Your task to perform on an android device: install app "Spotify" Image 0: 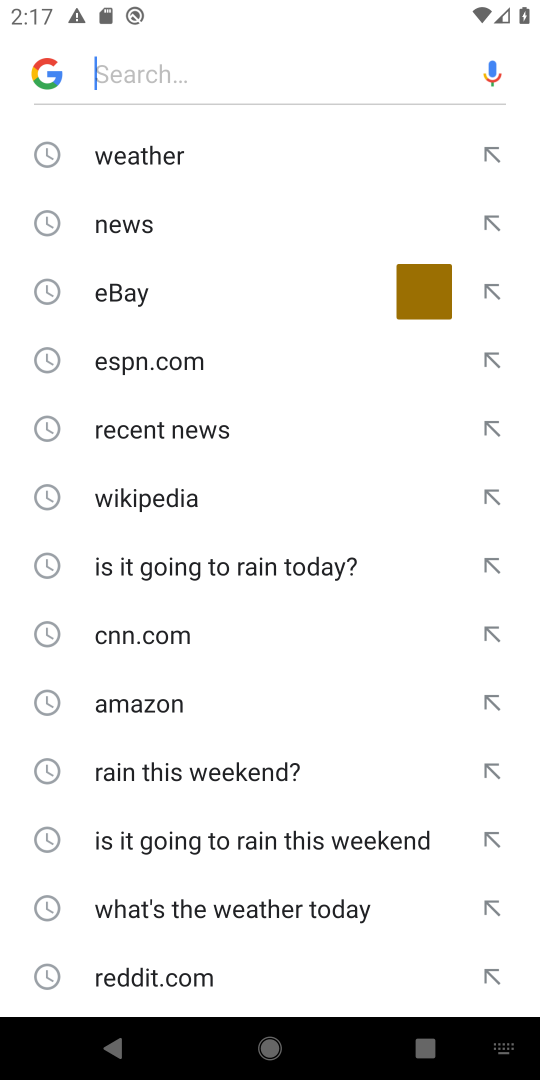
Step 0: press home button
Your task to perform on an android device: install app "Spotify" Image 1: 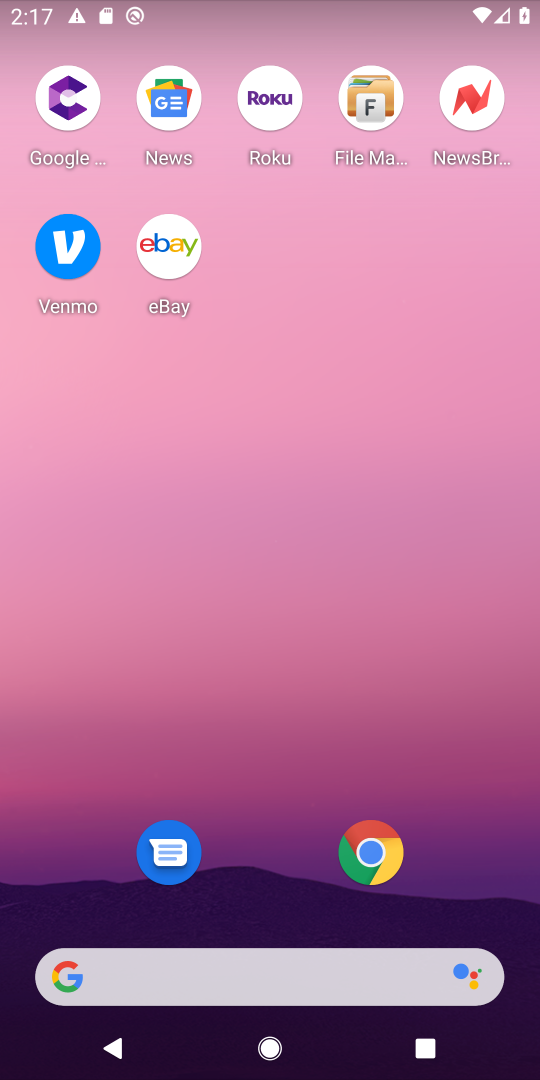
Step 1: drag from (275, 413) to (275, 164)
Your task to perform on an android device: install app "Spotify" Image 2: 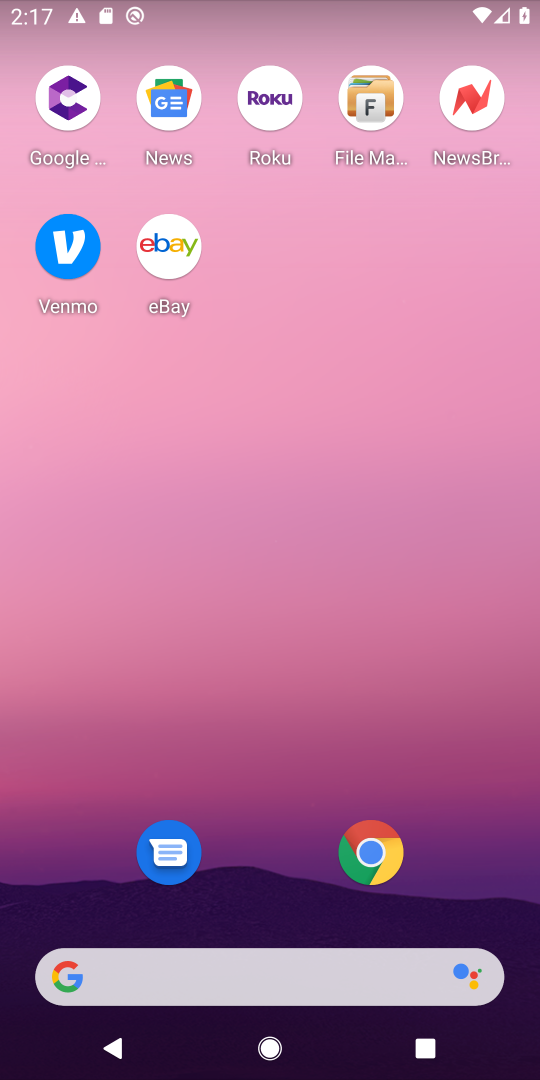
Step 2: drag from (282, 935) to (300, 96)
Your task to perform on an android device: install app "Spotify" Image 3: 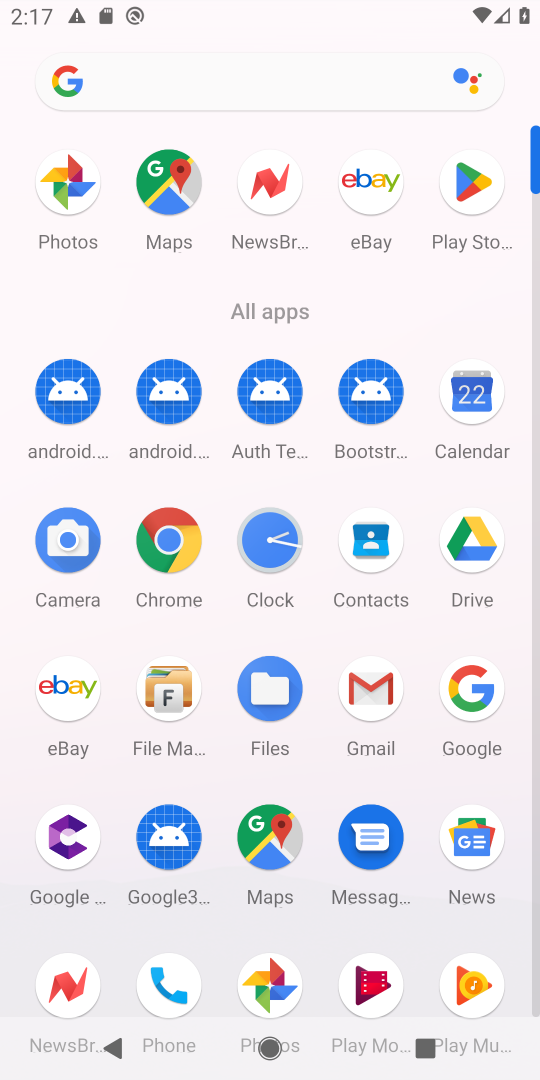
Step 3: click (474, 188)
Your task to perform on an android device: install app "Spotify" Image 4: 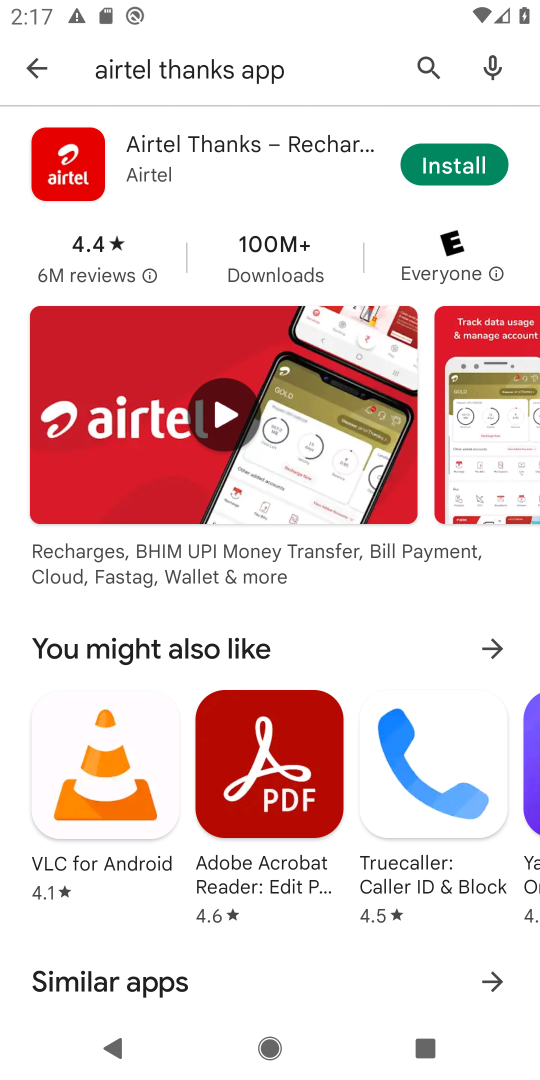
Step 4: click (432, 64)
Your task to perform on an android device: install app "Spotify" Image 5: 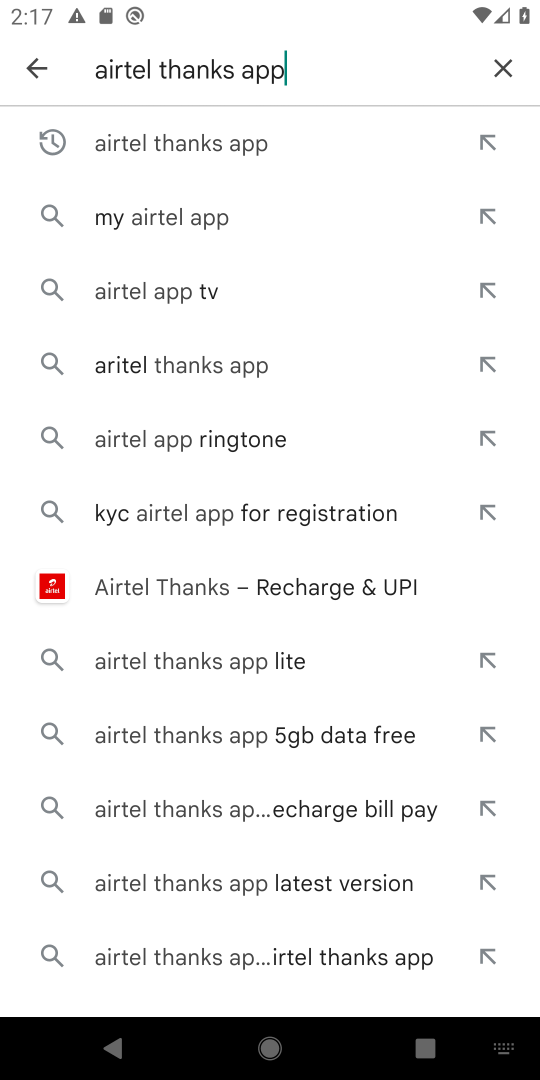
Step 5: click (504, 68)
Your task to perform on an android device: install app "Spotify" Image 6: 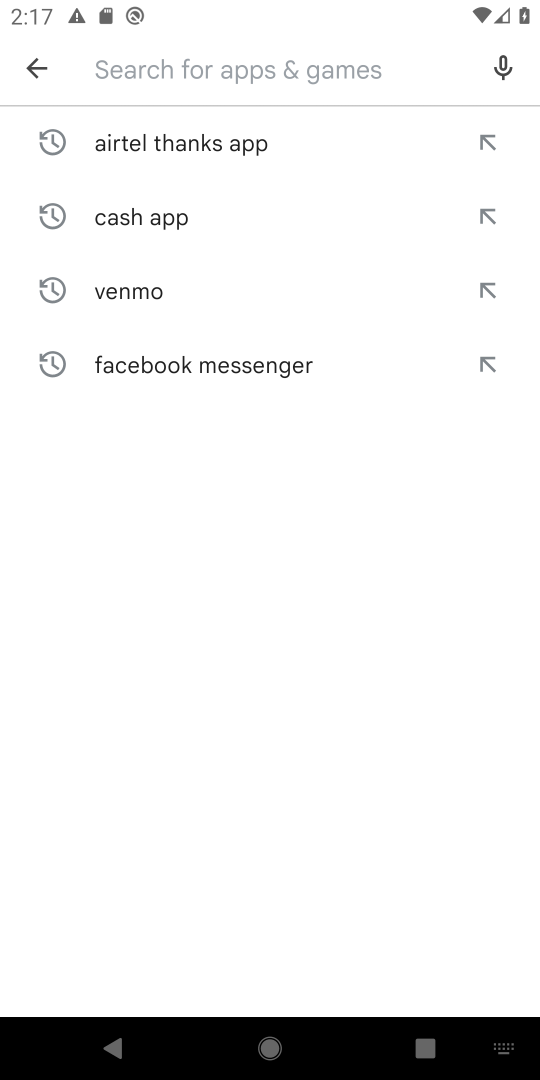
Step 6: type "Spotify"
Your task to perform on an android device: install app "Spotify" Image 7: 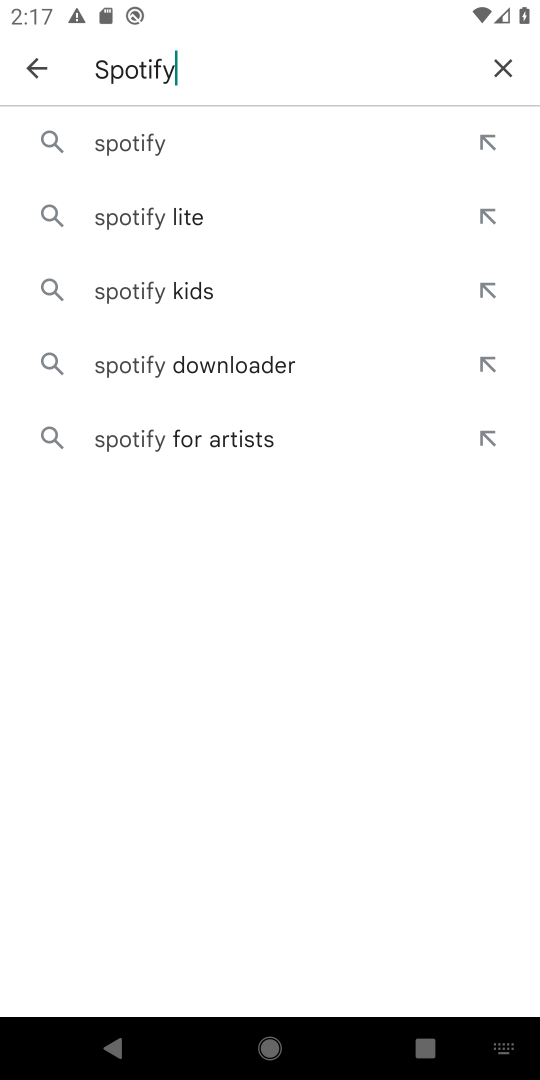
Step 7: click (118, 142)
Your task to perform on an android device: install app "Spotify" Image 8: 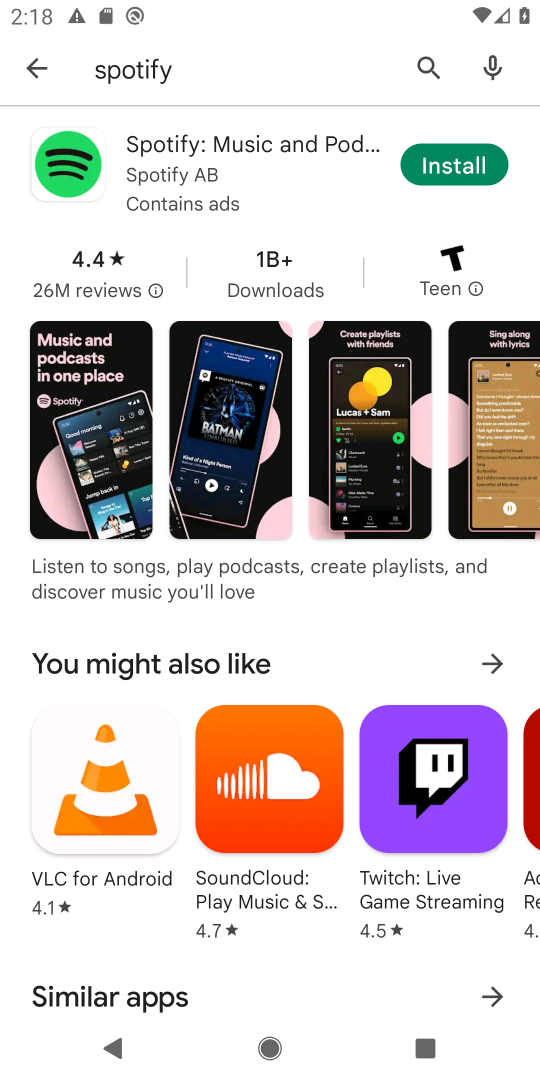
Step 8: click (465, 161)
Your task to perform on an android device: install app "Spotify" Image 9: 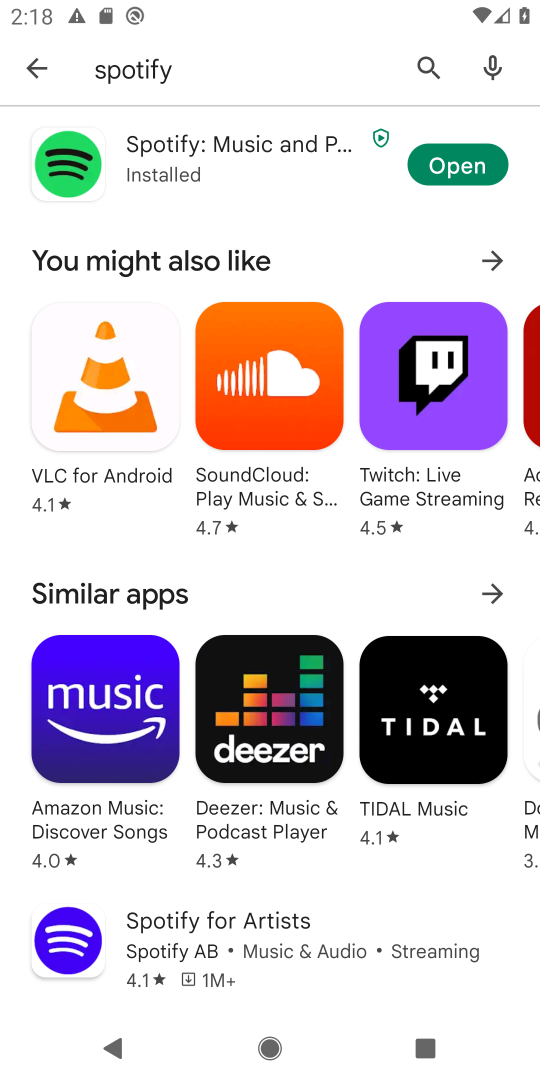
Step 9: task complete